Your task to perform on an android device: toggle wifi Image 0: 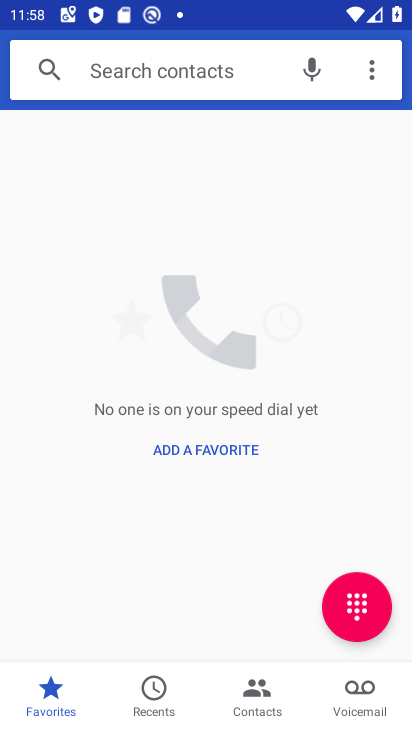
Step 0: drag from (346, 10) to (223, 550)
Your task to perform on an android device: toggle wifi Image 1: 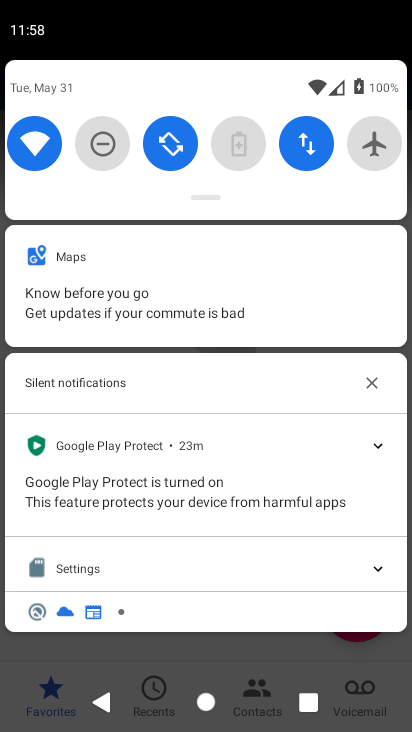
Step 1: click (47, 158)
Your task to perform on an android device: toggle wifi Image 2: 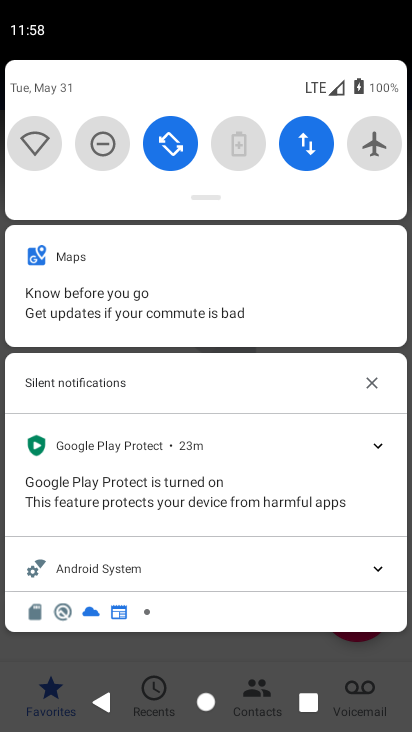
Step 2: task complete